Your task to perform on an android device: Open calendar and show me the first week of next month Image 0: 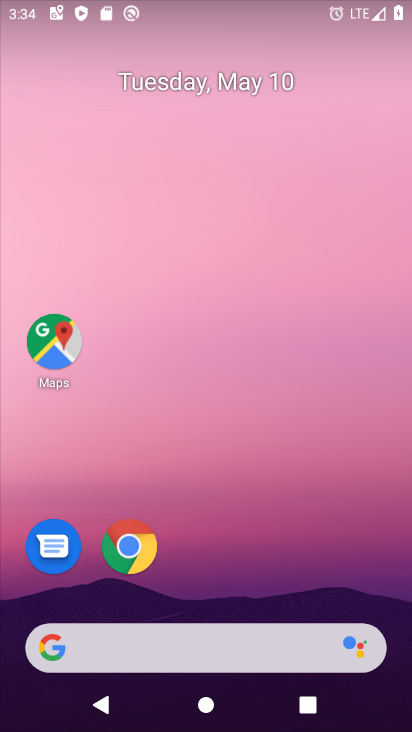
Step 0: drag from (228, 604) to (244, 182)
Your task to perform on an android device: Open calendar and show me the first week of next month Image 1: 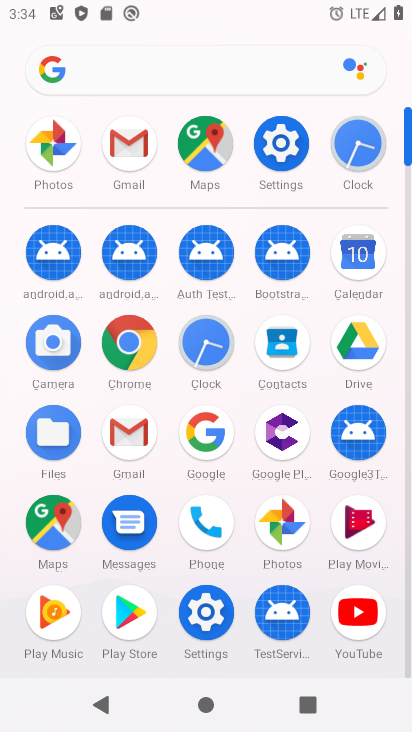
Step 1: click (372, 272)
Your task to perform on an android device: Open calendar and show me the first week of next month Image 2: 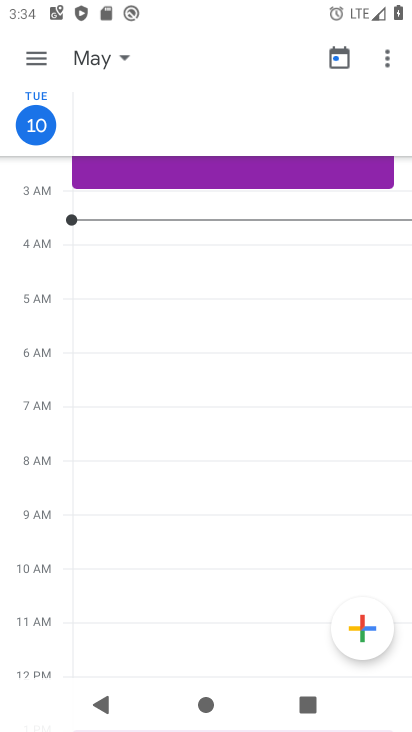
Step 2: click (31, 71)
Your task to perform on an android device: Open calendar and show me the first week of next month Image 3: 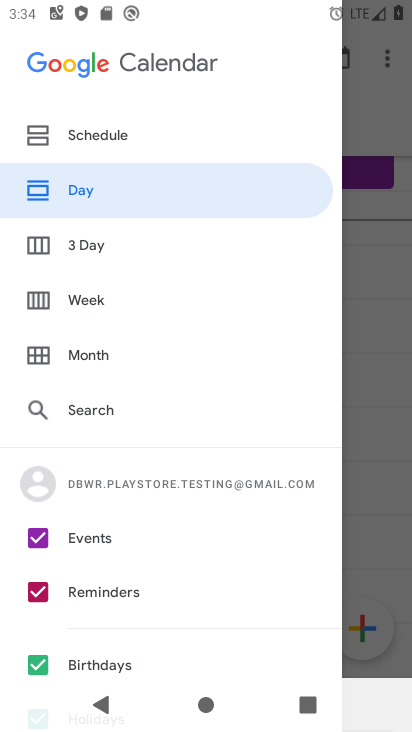
Step 3: click (120, 309)
Your task to perform on an android device: Open calendar and show me the first week of next month Image 4: 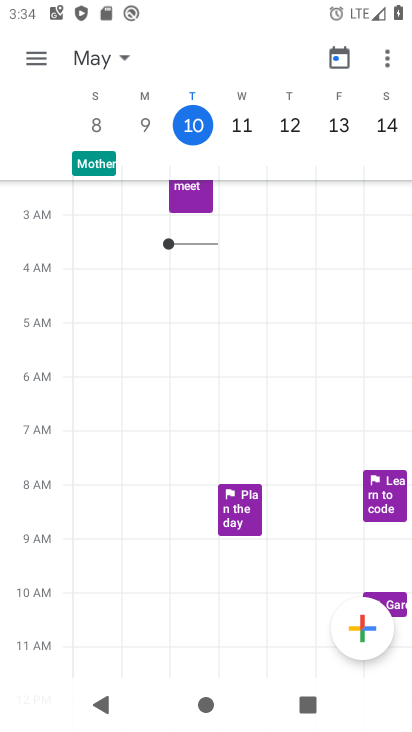
Step 4: task complete